Your task to perform on an android device: turn off javascript in the chrome app Image 0: 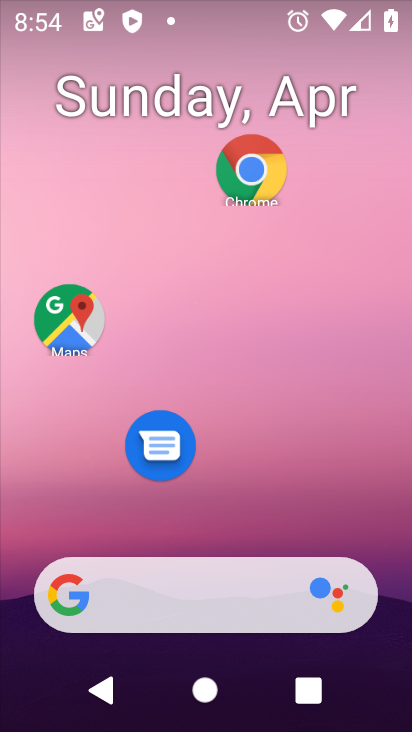
Step 0: click (252, 171)
Your task to perform on an android device: turn off javascript in the chrome app Image 1: 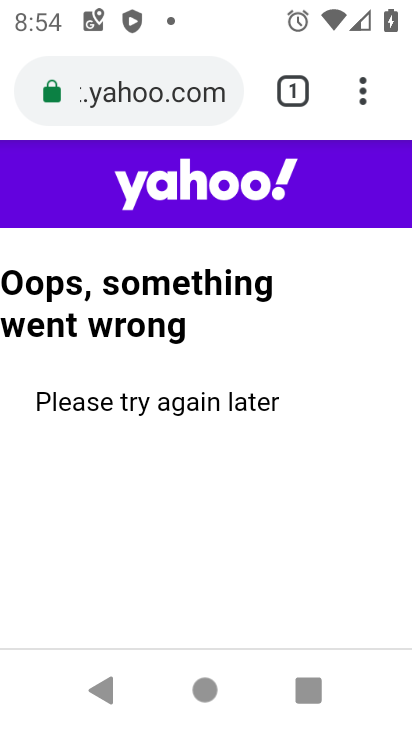
Step 1: click (358, 89)
Your task to perform on an android device: turn off javascript in the chrome app Image 2: 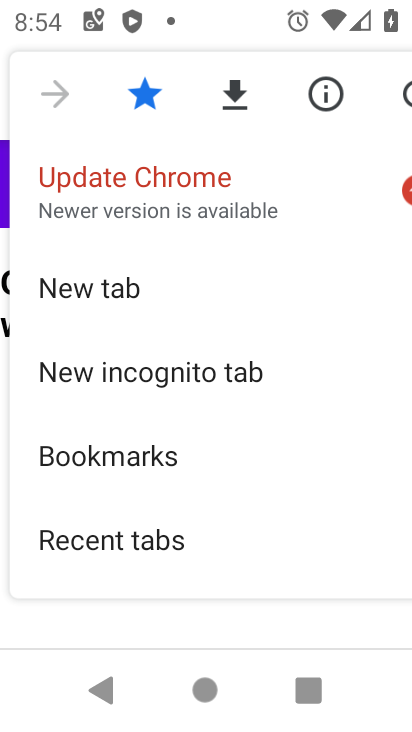
Step 2: drag from (310, 553) to (269, 113)
Your task to perform on an android device: turn off javascript in the chrome app Image 3: 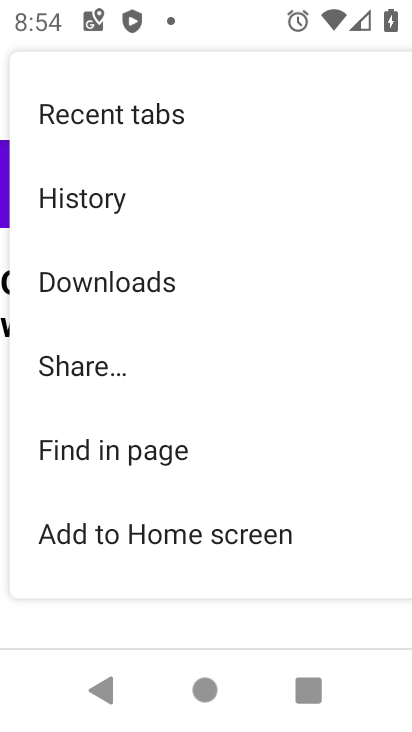
Step 3: drag from (402, 393) to (341, 119)
Your task to perform on an android device: turn off javascript in the chrome app Image 4: 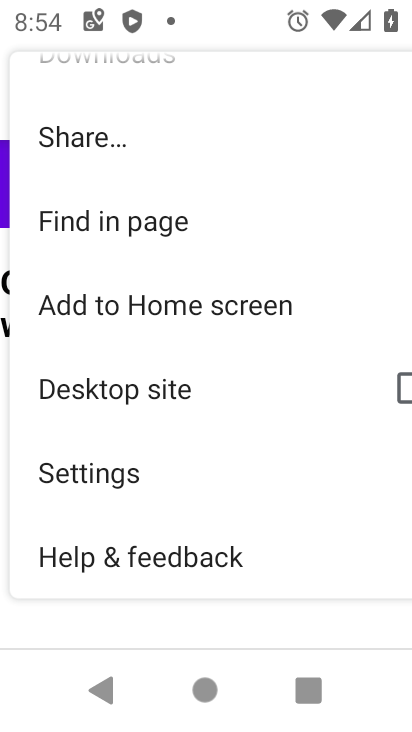
Step 4: click (120, 470)
Your task to perform on an android device: turn off javascript in the chrome app Image 5: 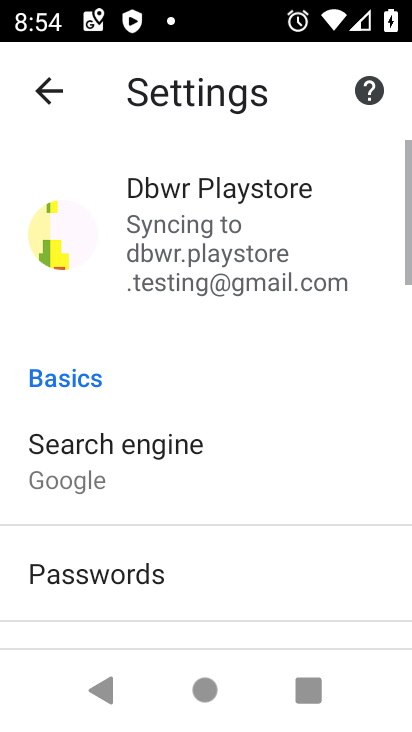
Step 5: drag from (302, 495) to (246, 104)
Your task to perform on an android device: turn off javascript in the chrome app Image 6: 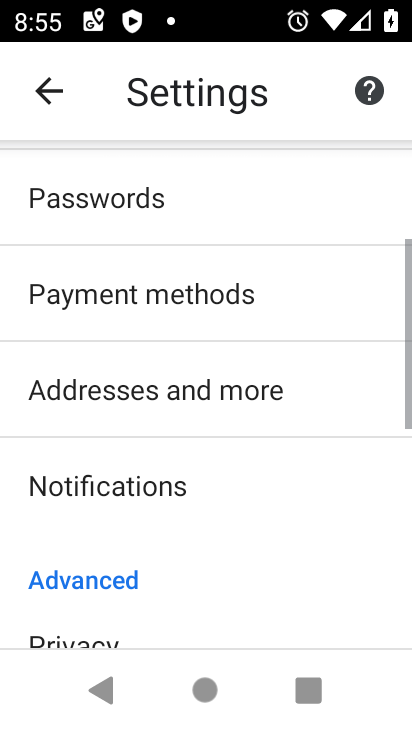
Step 6: drag from (220, 571) to (198, 232)
Your task to perform on an android device: turn off javascript in the chrome app Image 7: 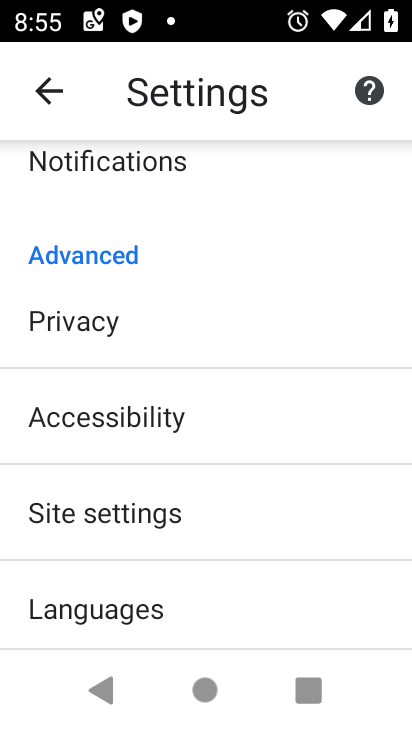
Step 7: click (160, 508)
Your task to perform on an android device: turn off javascript in the chrome app Image 8: 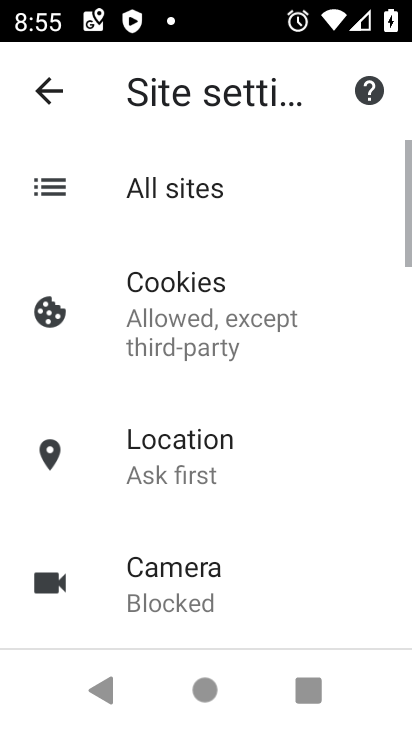
Step 8: drag from (298, 537) to (276, 116)
Your task to perform on an android device: turn off javascript in the chrome app Image 9: 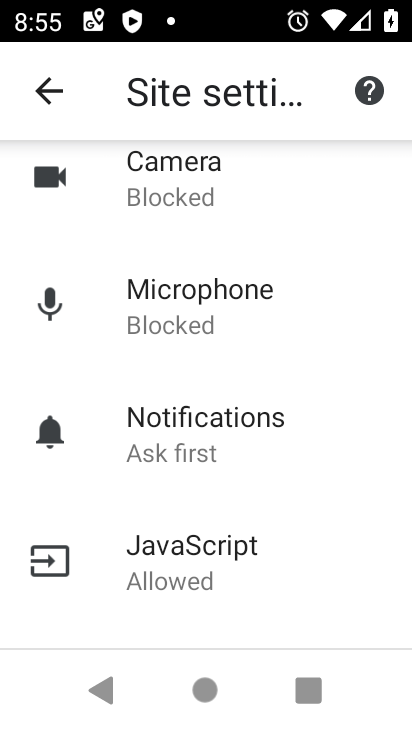
Step 9: click (212, 566)
Your task to perform on an android device: turn off javascript in the chrome app Image 10: 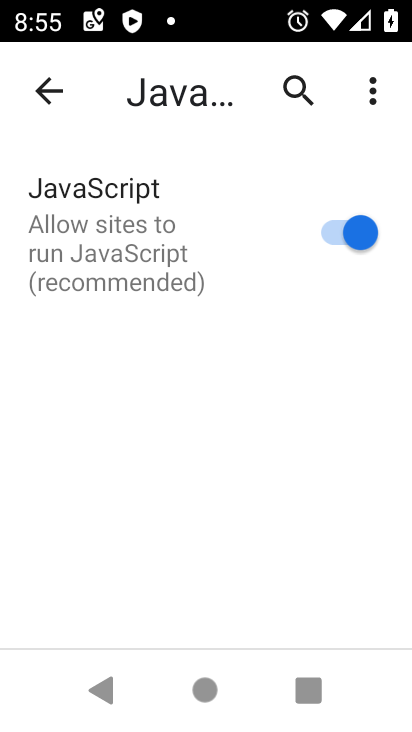
Step 10: click (360, 242)
Your task to perform on an android device: turn off javascript in the chrome app Image 11: 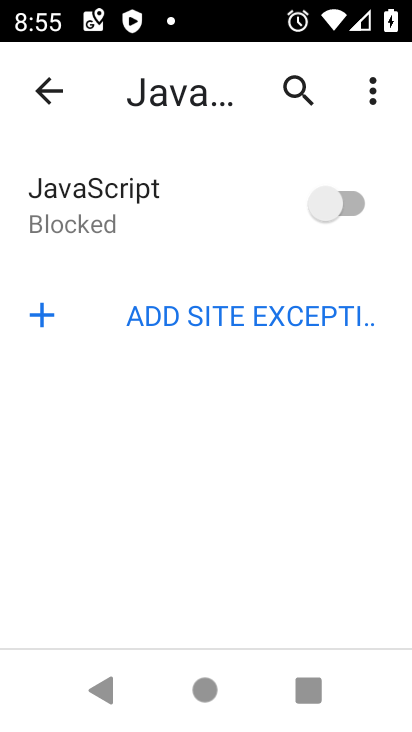
Step 11: task complete